Your task to perform on an android device: read, delete, or share a saved page in the chrome app Image 0: 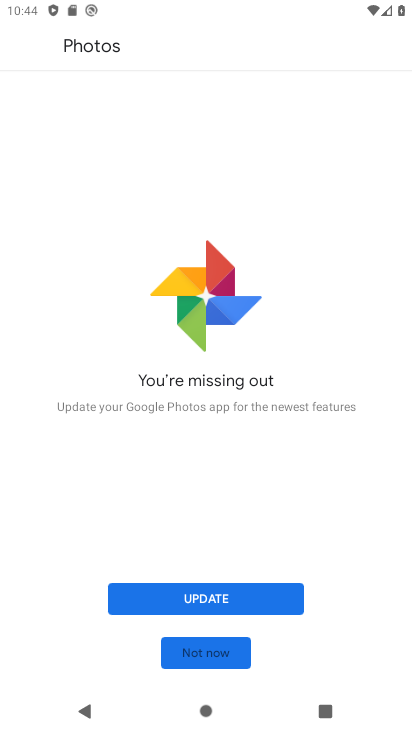
Step 0: press home button
Your task to perform on an android device: read, delete, or share a saved page in the chrome app Image 1: 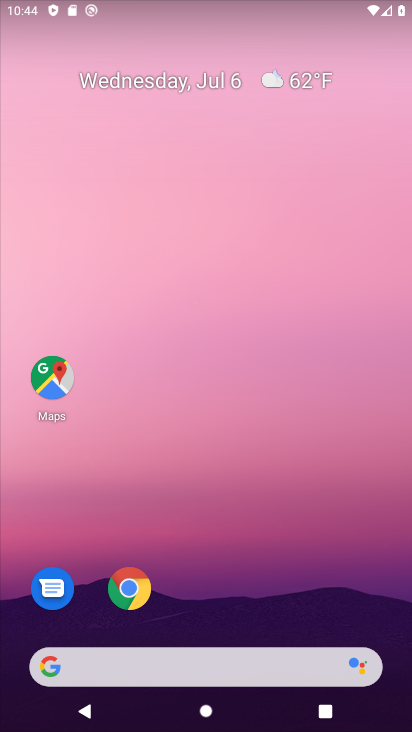
Step 1: click (126, 593)
Your task to perform on an android device: read, delete, or share a saved page in the chrome app Image 2: 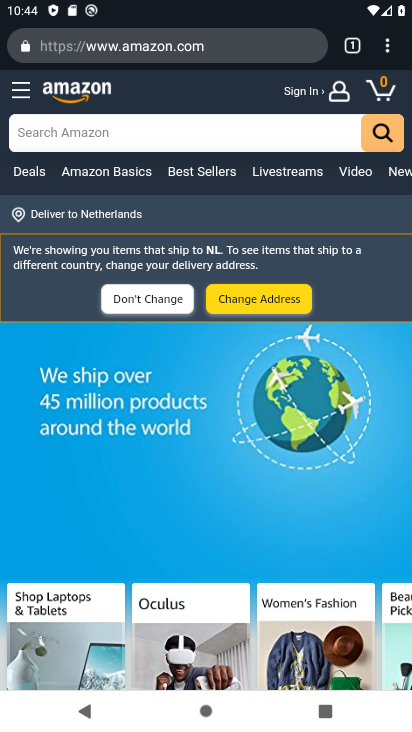
Step 2: click (387, 53)
Your task to perform on an android device: read, delete, or share a saved page in the chrome app Image 3: 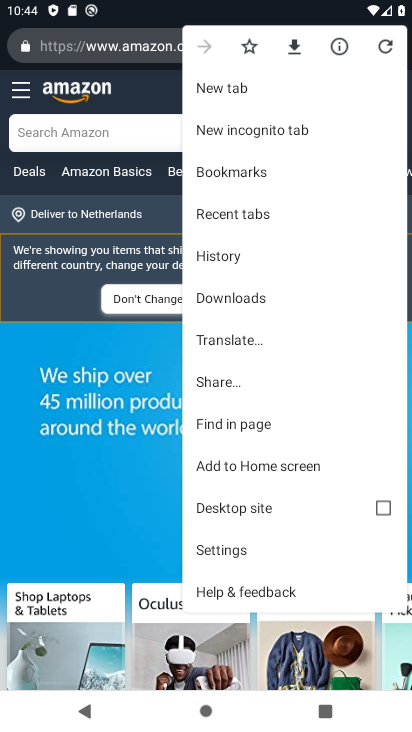
Step 3: click (233, 296)
Your task to perform on an android device: read, delete, or share a saved page in the chrome app Image 4: 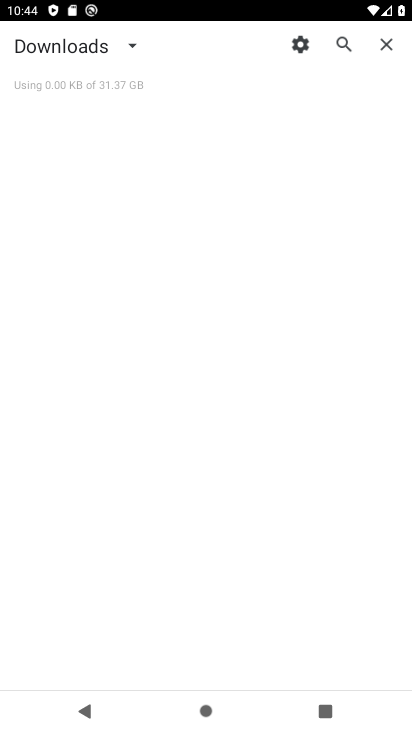
Step 4: click (128, 48)
Your task to perform on an android device: read, delete, or share a saved page in the chrome app Image 5: 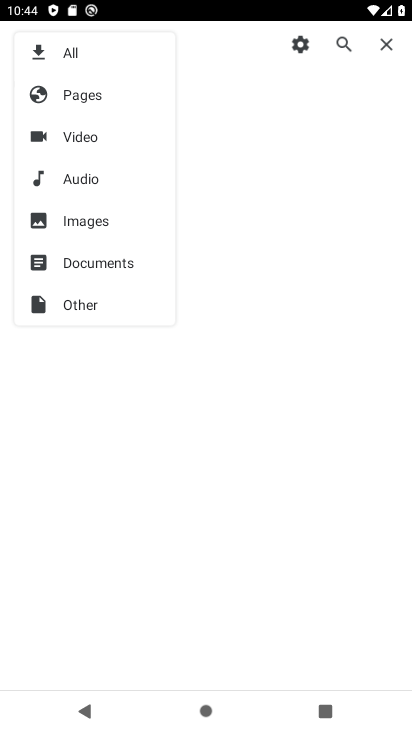
Step 5: click (82, 98)
Your task to perform on an android device: read, delete, or share a saved page in the chrome app Image 6: 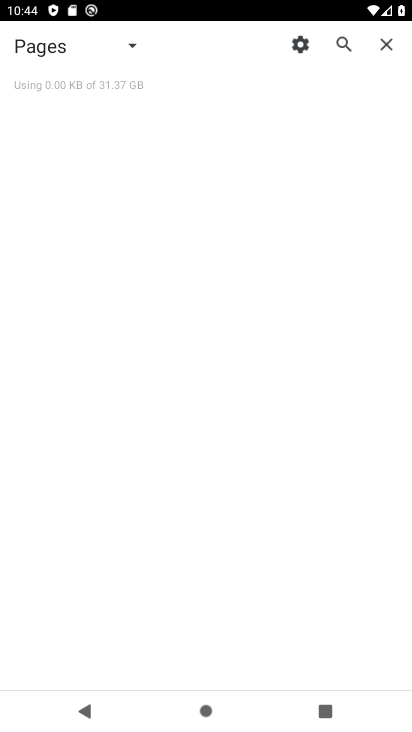
Step 6: task complete